Your task to perform on an android device: Open the calendar app, open the side menu, and click the "Day" option Image 0: 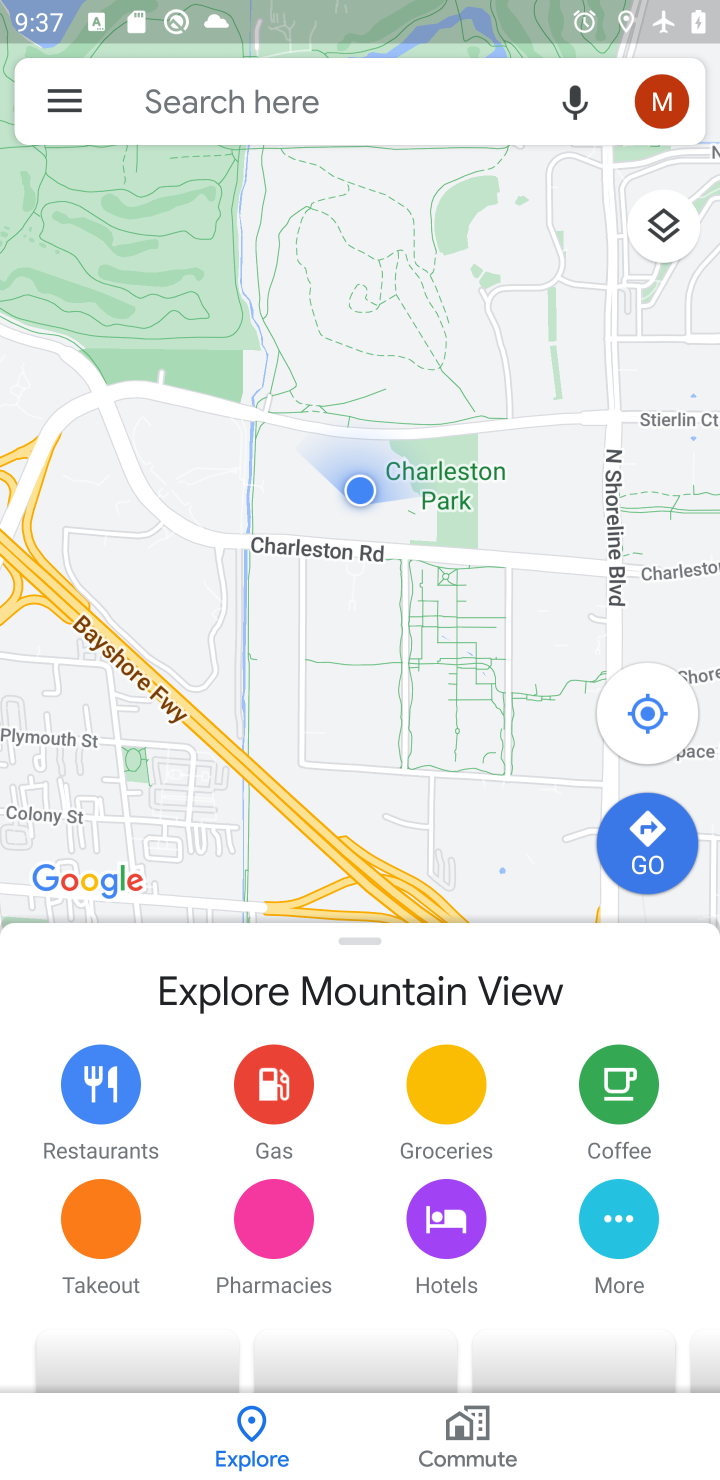
Step 0: press home button
Your task to perform on an android device: Open the calendar app, open the side menu, and click the "Day" option Image 1: 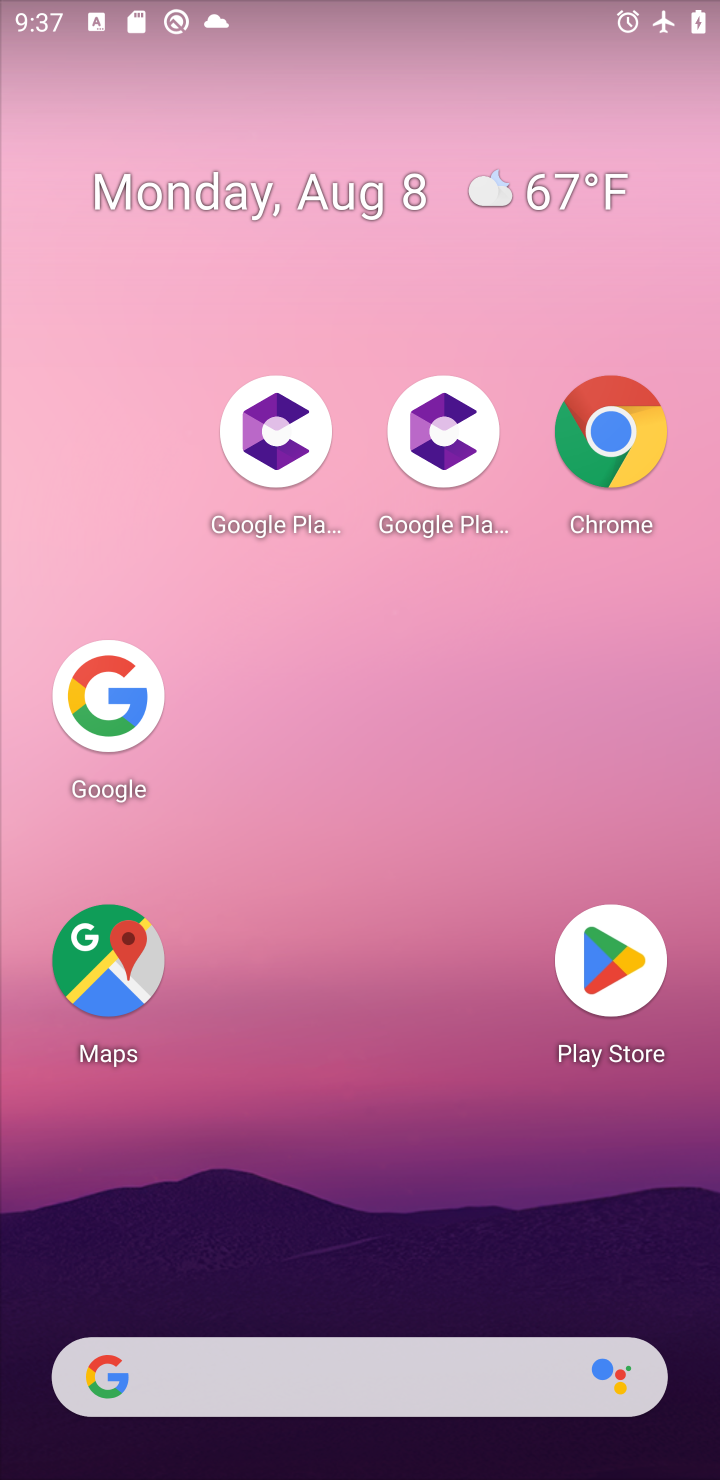
Step 1: click (297, 192)
Your task to perform on an android device: Open the calendar app, open the side menu, and click the "Day" option Image 2: 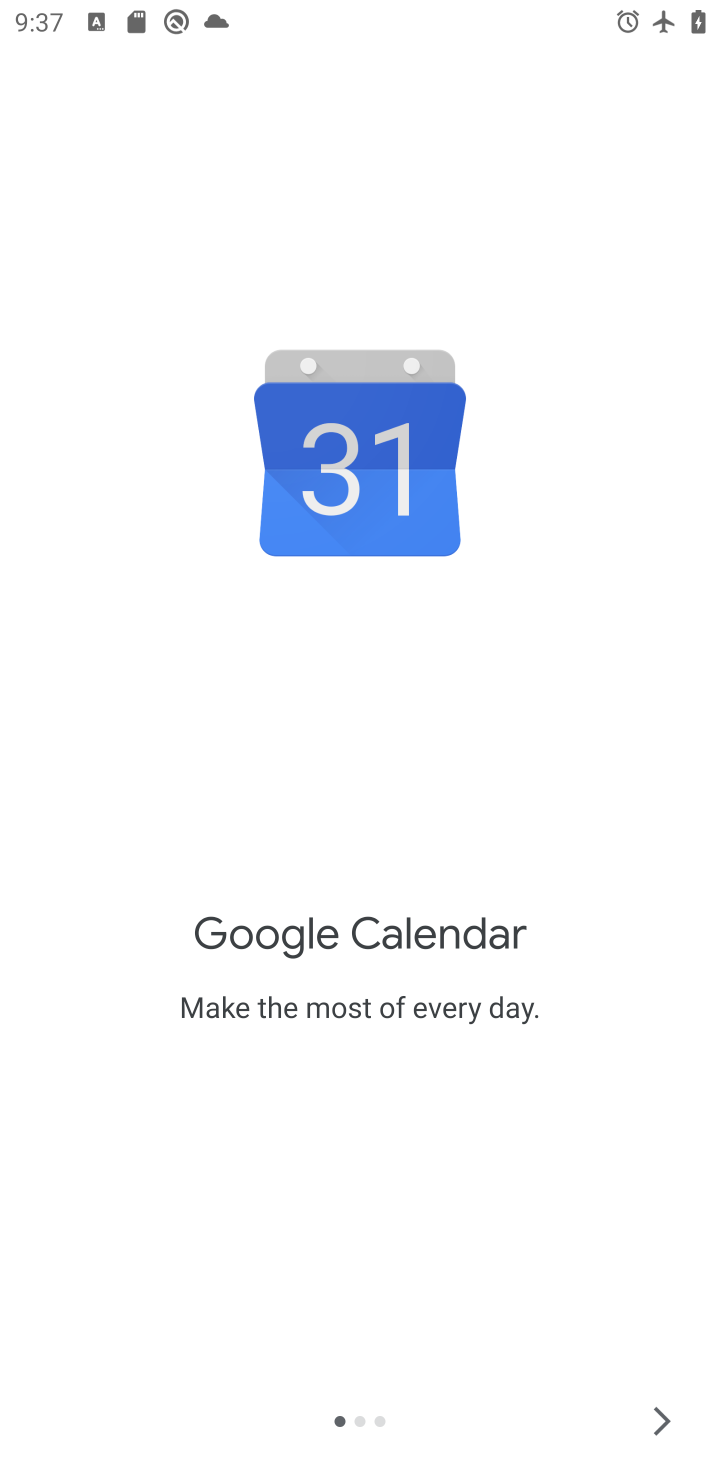
Step 2: click (662, 1406)
Your task to perform on an android device: Open the calendar app, open the side menu, and click the "Day" option Image 3: 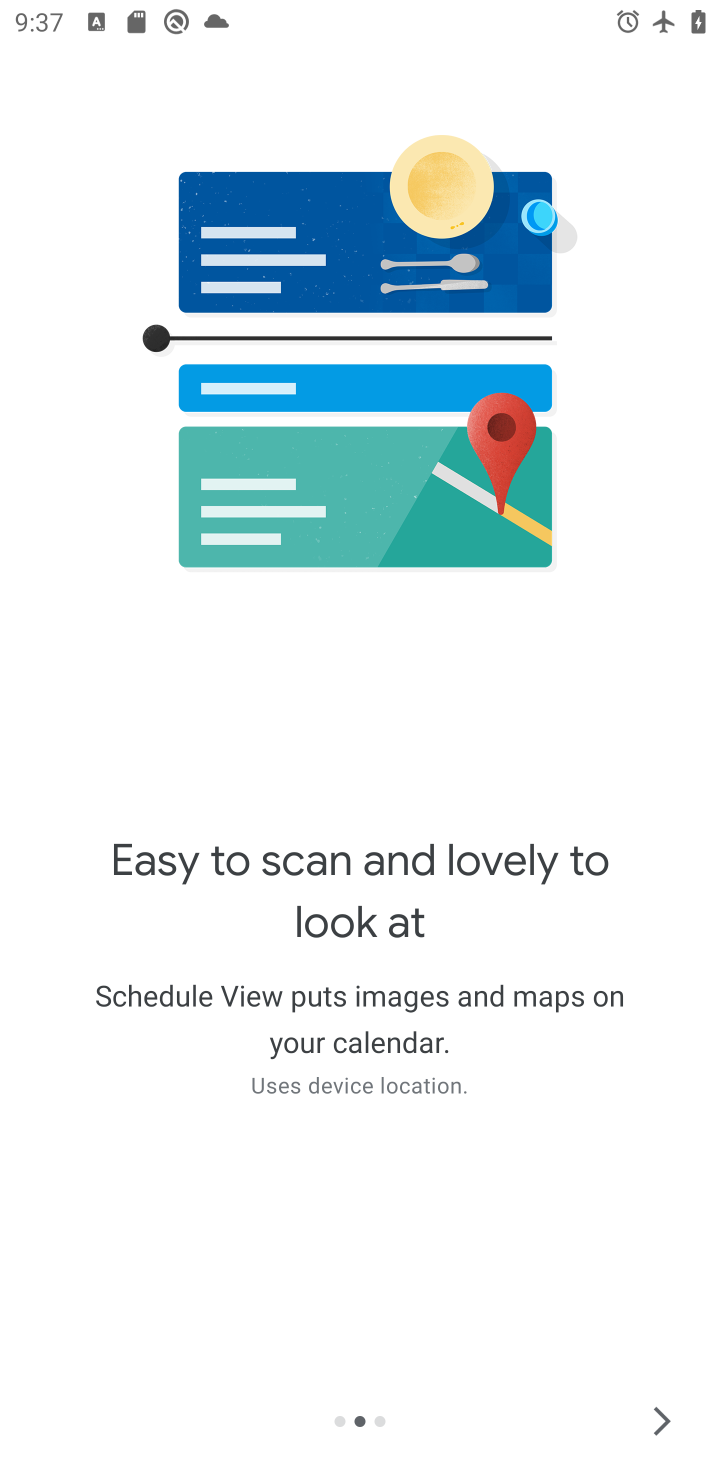
Step 3: click (662, 1406)
Your task to perform on an android device: Open the calendar app, open the side menu, and click the "Day" option Image 4: 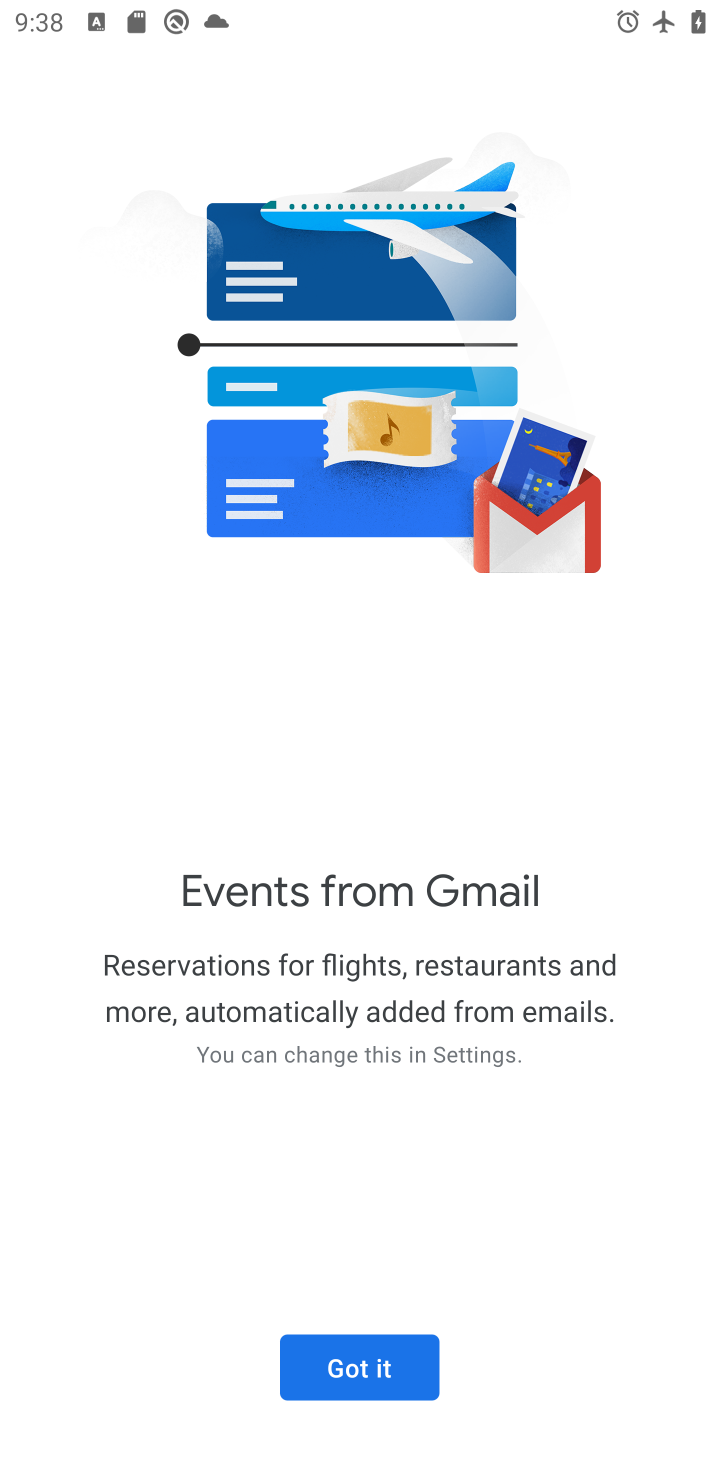
Step 4: click (314, 1359)
Your task to perform on an android device: Open the calendar app, open the side menu, and click the "Day" option Image 5: 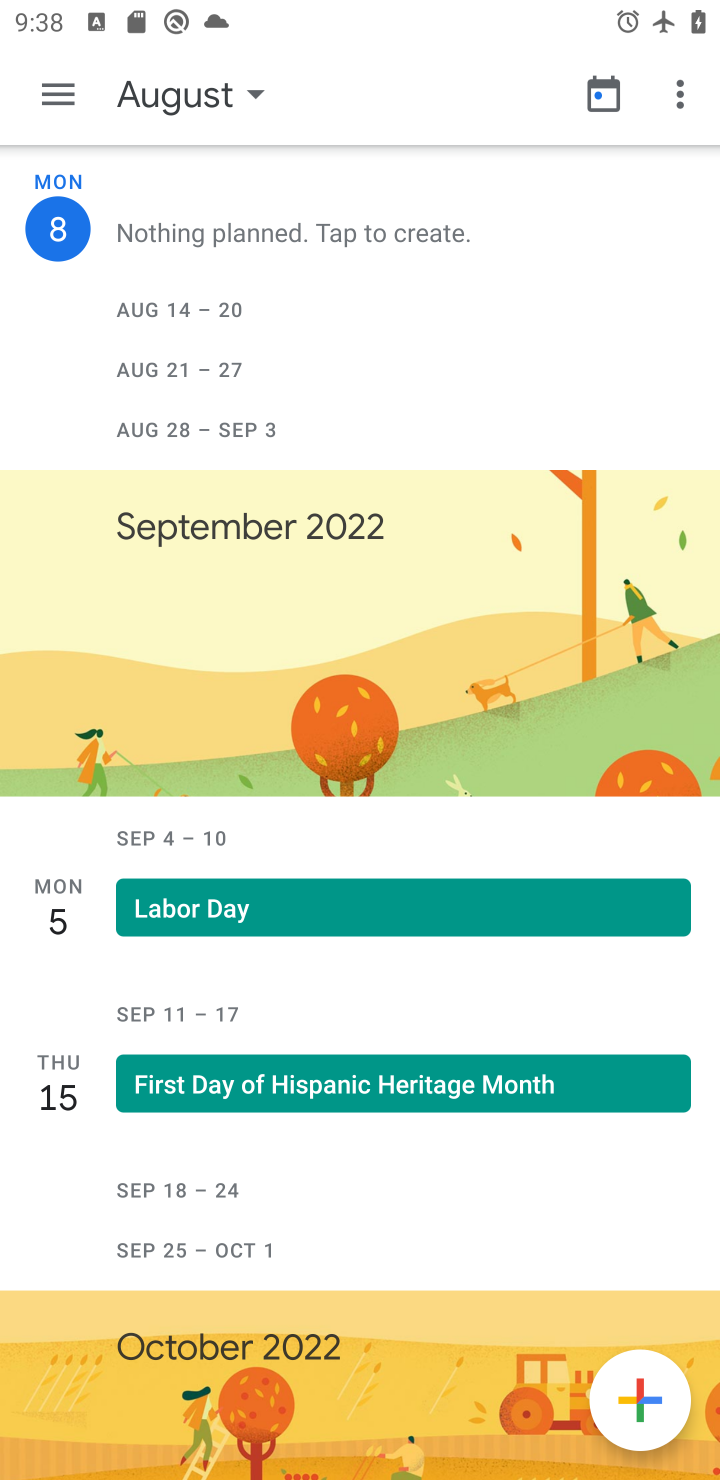
Step 5: click (79, 107)
Your task to perform on an android device: Open the calendar app, open the side menu, and click the "Day" option Image 6: 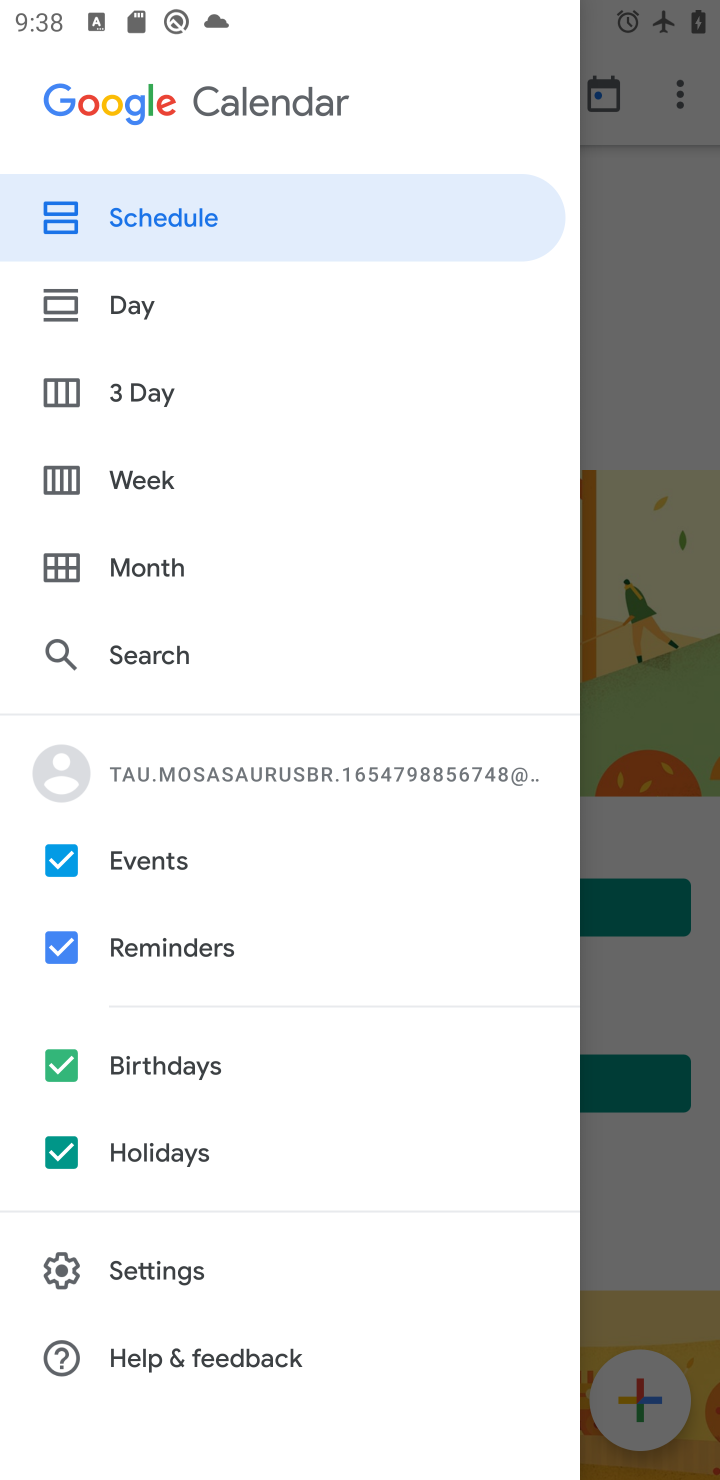
Step 6: click (153, 289)
Your task to perform on an android device: Open the calendar app, open the side menu, and click the "Day" option Image 7: 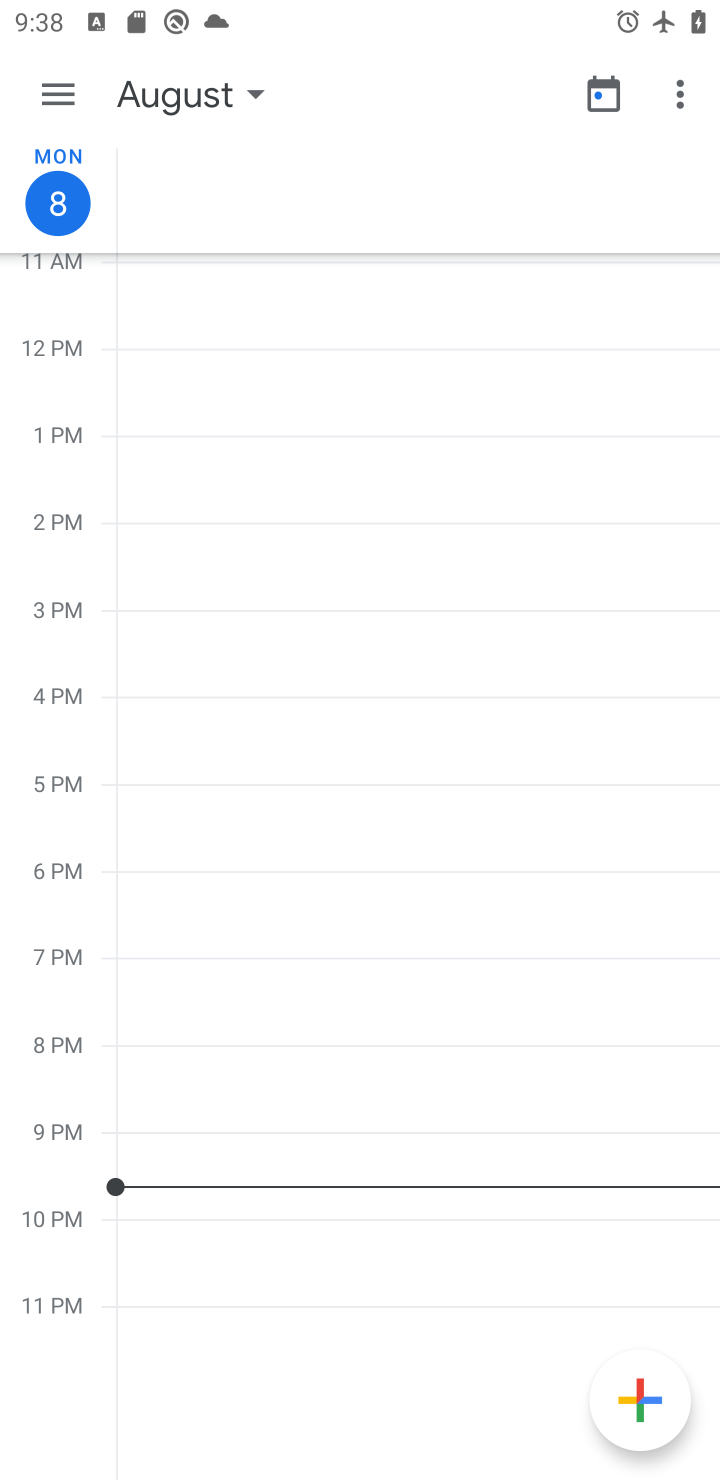
Step 7: task complete